Your task to perform on an android device: turn on notifications settings in the gmail app Image 0: 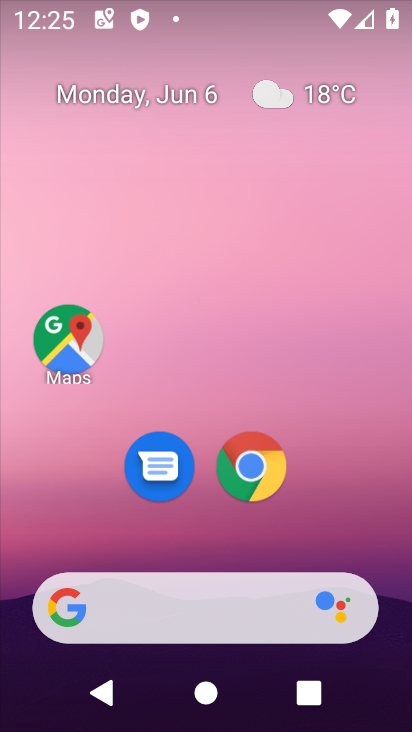
Step 0: drag from (347, 533) to (257, 69)
Your task to perform on an android device: turn on notifications settings in the gmail app Image 1: 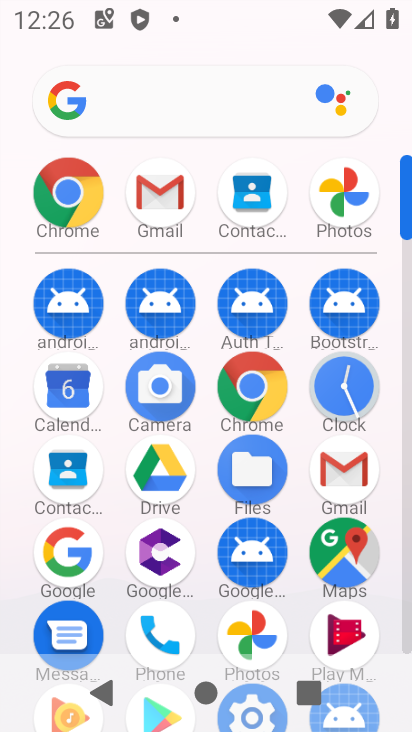
Step 1: drag from (9, 570) to (5, 250)
Your task to perform on an android device: turn on notifications settings in the gmail app Image 2: 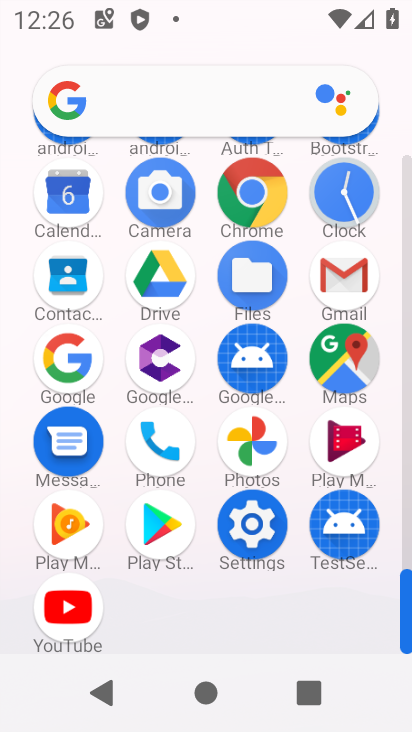
Step 2: click (337, 268)
Your task to perform on an android device: turn on notifications settings in the gmail app Image 3: 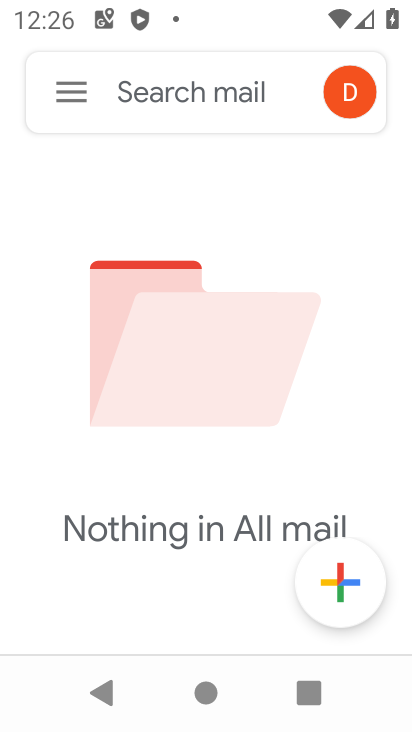
Step 3: click (62, 65)
Your task to perform on an android device: turn on notifications settings in the gmail app Image 4: 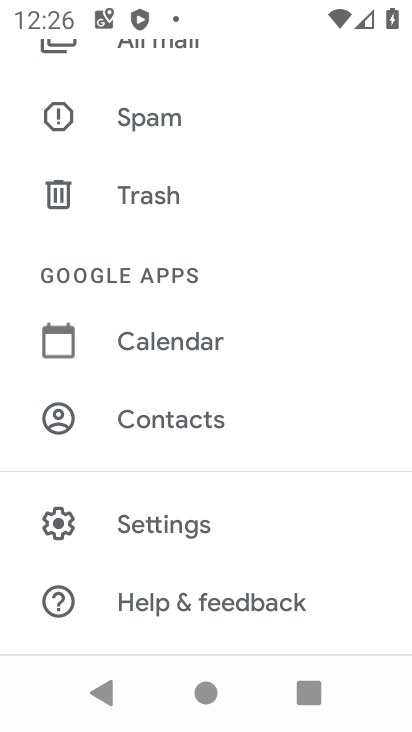
Step 4: click (178, 520)
Your task to perform on an android device: turn on notifications settings in the gmail app Image 5: 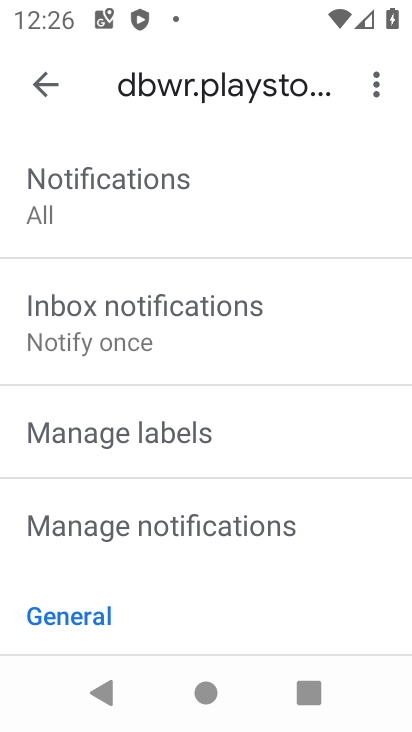
Step 5: drag from (233, 529) to (234, 154)
Your task to perform on an android device: turn on notifications settings in the gmail app Image 6: 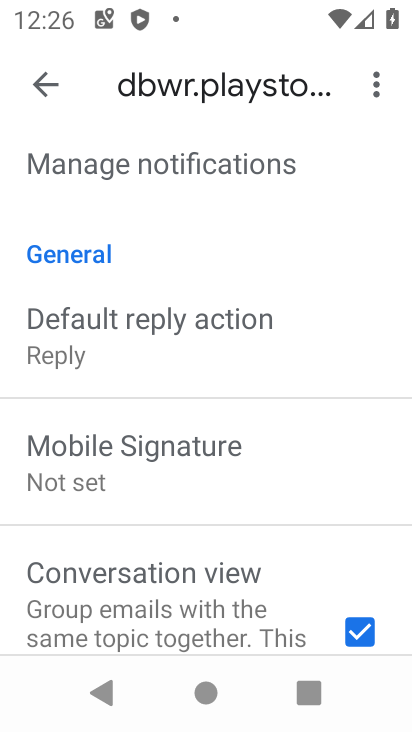
Step 6: drag from (227, 519) to (254, 140)
Your task to perform on an android device: turn on notifications settings in the gmail app Image 7: 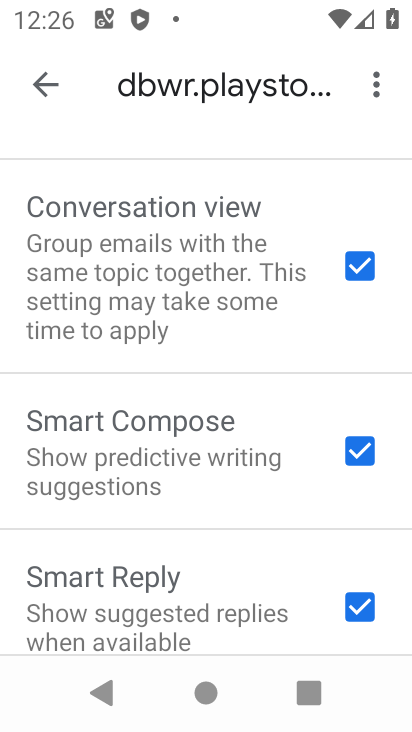
Step 7: drag from (188, 542) to (201, 156)
Your task to perform on an android device: turn on notifications settings in the gmail app Image 8: 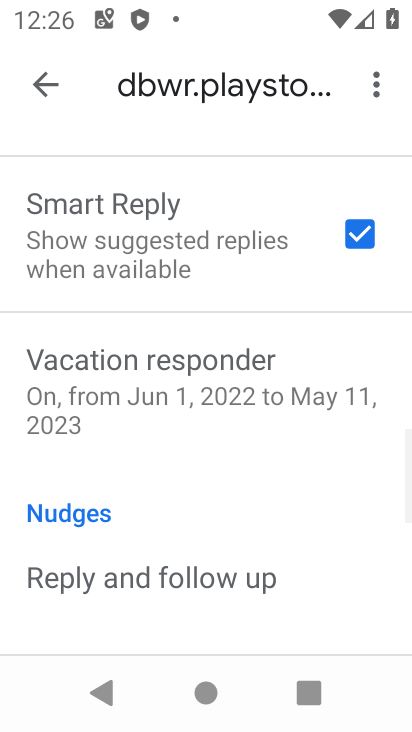
Step 8: drag from (219, 588) to (234, 155)
Your task to perform on an android device: turn on notifications settings in the gmail app Image 9: 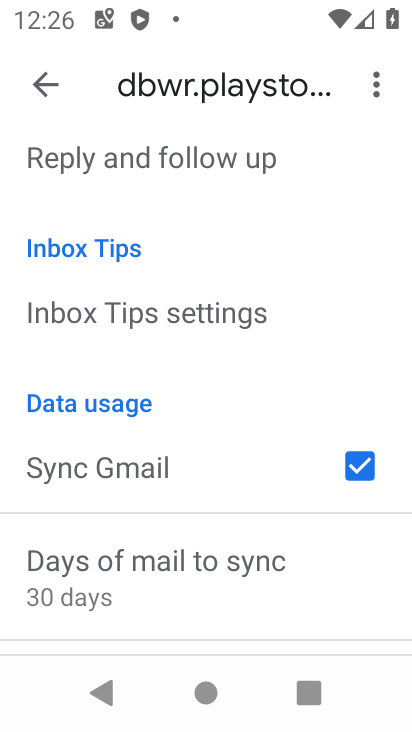
Step 9: drag from (202, 509) to (246, 142)
Your task to perform on an android device: turn on notifications settings in the gmail app Image 10: 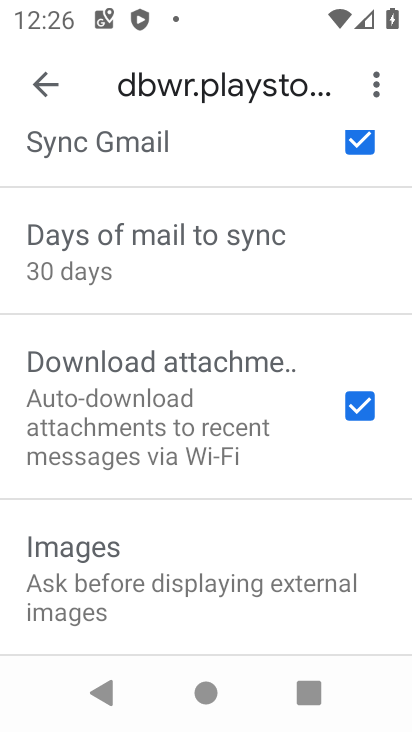
Step 10: drag from (188, 539) to (204, 162)
Your task to perform on an android device: turn on notifications settings in the gmail app Image 11: 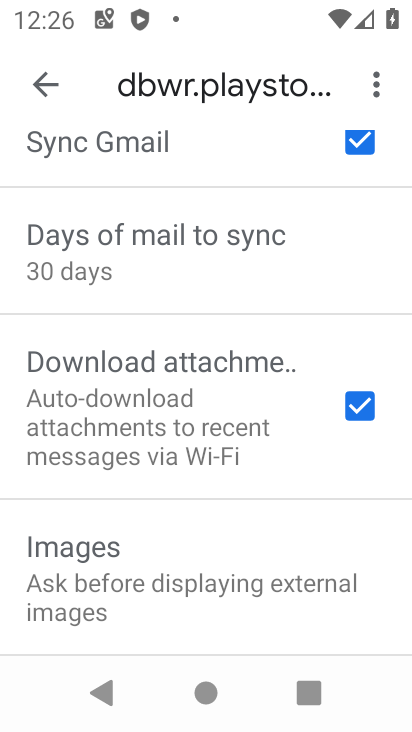
Step 11: drag from (198, 399) to (185, 665)
Your task to perform on an android device: turn on notifications settings in the gmail app Image 12: 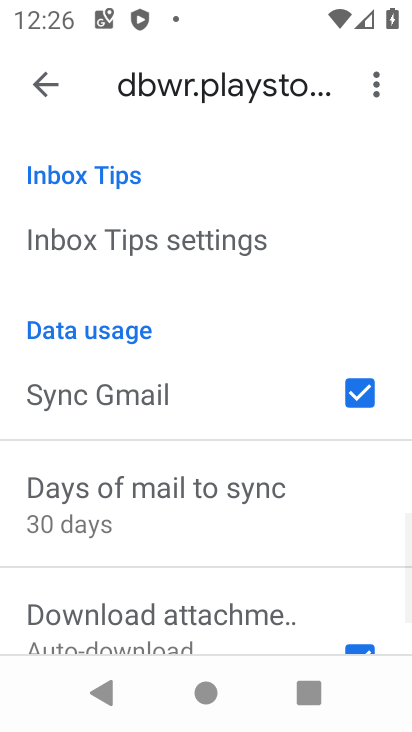
Step 12: drag from (183, 219) to (186, 631)
Your task to perform on an android device: turn on notifications settings in the gmail app Image 13: 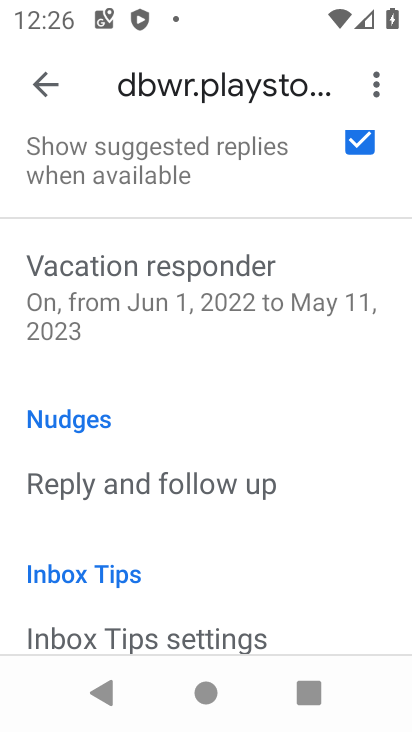
Step 13: drag from (225, 256) to (224, 635)
Your task to perform on an android device: turn on notifications settings in the gmail app Image 14: 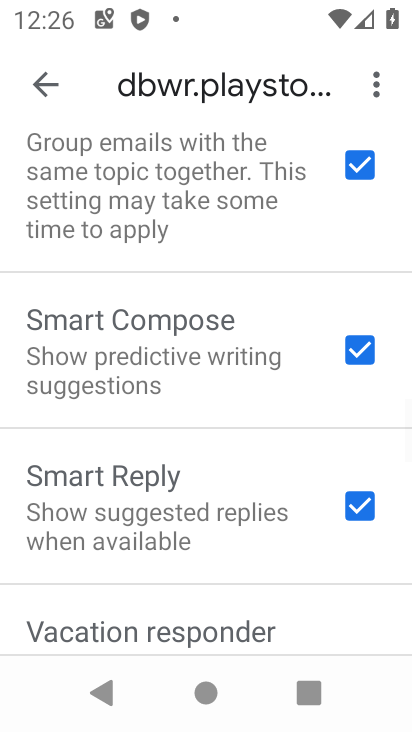
Step 14: drag from (193, 248) to (201, 620)
Your task to perform on an android device: turn on notifications settings in the gmail app Image 15: 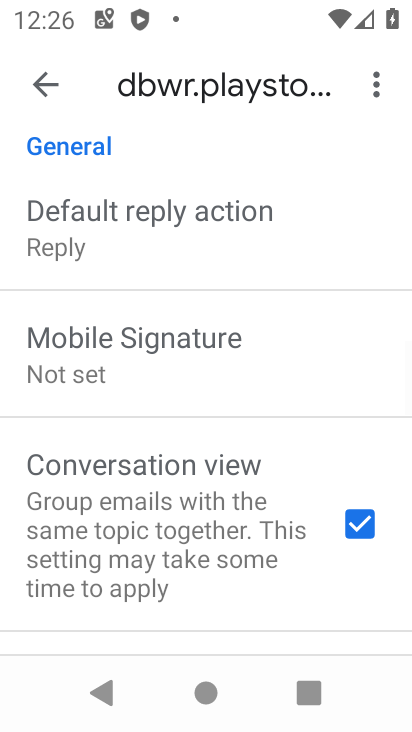
Step 15: drag from (185, 270) to (186, 625)
Your task to perform on an android device: turn on notifications settings in the gmail app Image 16: 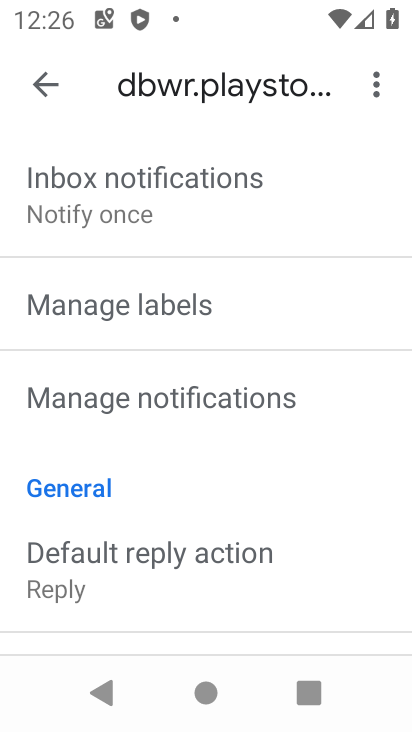
Step 16: click (194, 384)
Your task to perform on an android device: turn on notifications settings in the gmail app Image 17: 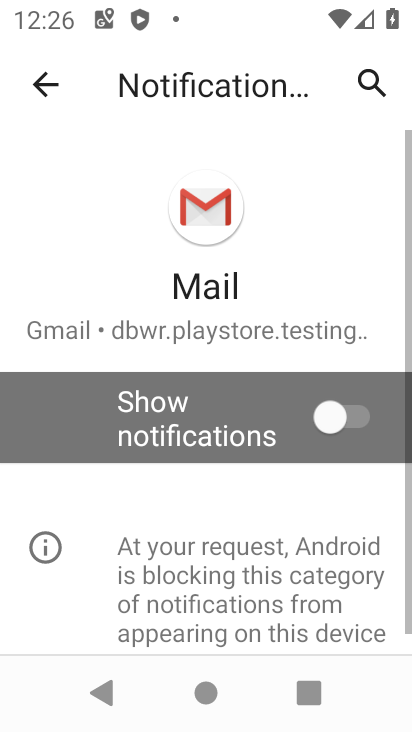
Step 17: click (346, 418)
Your task to perform on an android device: turn on notifications settings in the gmail app Image 18: 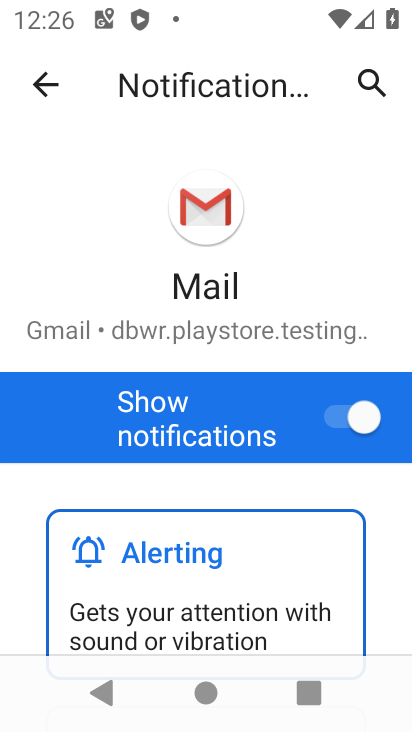
Step 18: task complete